Your task to perform on an android device: What's the weather today? Image 0: 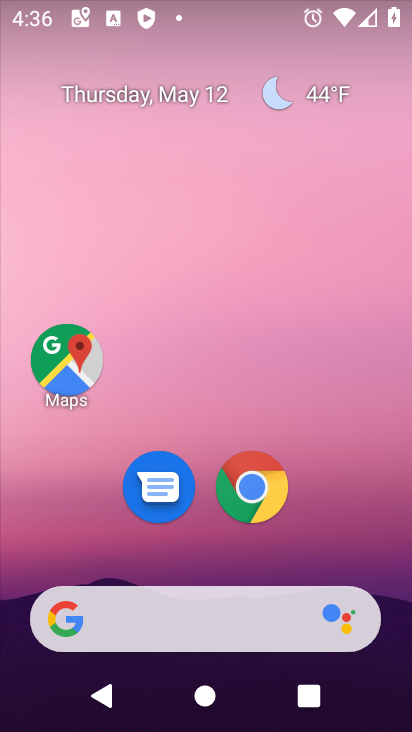
Step 0: drag from (261, 581) to (360, 124)
Your task to perform on an android device: What's the weather today? Image 1: 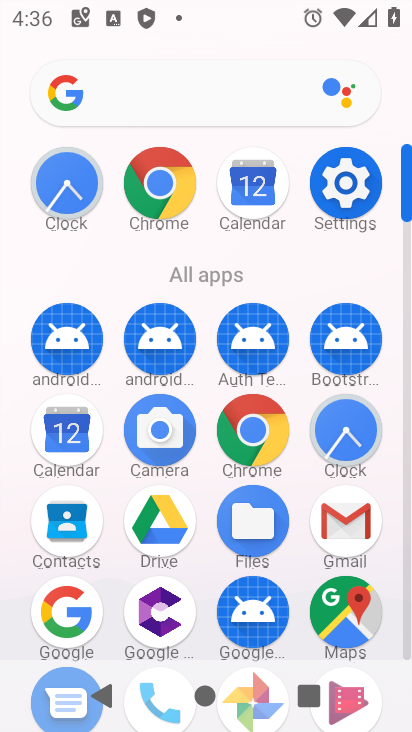
Step 1: click (76, 617)
Your task to perform on an android device: What's the weather today? Image 2: 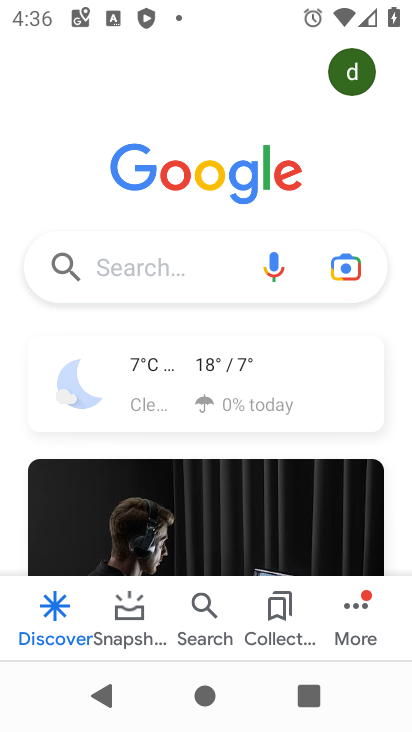
Step 2: click (220, 380)
Your task to perform on an android device: What's the weather today? Image 3: 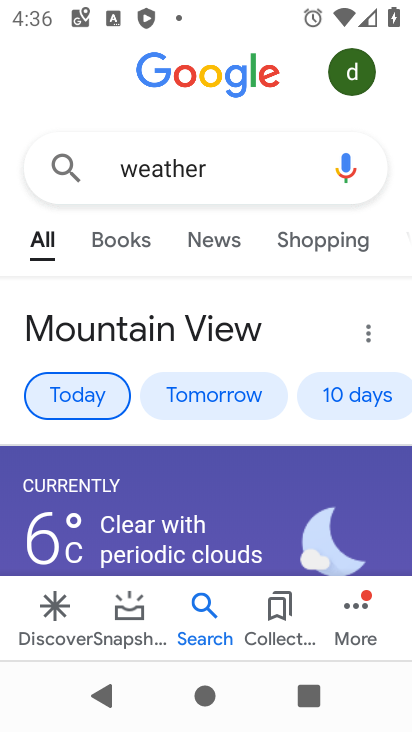
Step 3: task complete